Your task to perform on an android device: Open the calendar and show me this week's events? Image 0: 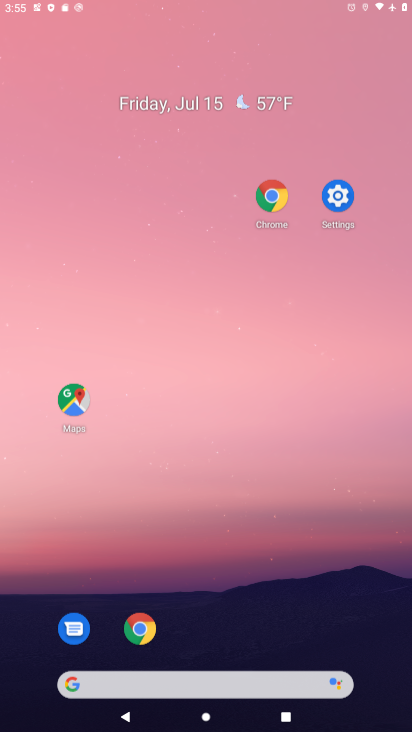
Step 0: drag from (208, 288) to (174, 106)
Your task to perform on an android device: Open the calendar and show me this week's events? Image 1: 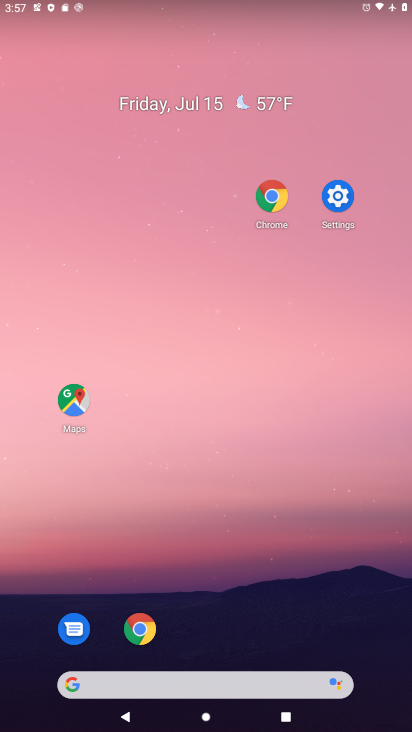
Step 1: drag from (286, 592) to (196, 73)
Your task to perform on an android device: Open the calendar and show me this week's events? Image 2: 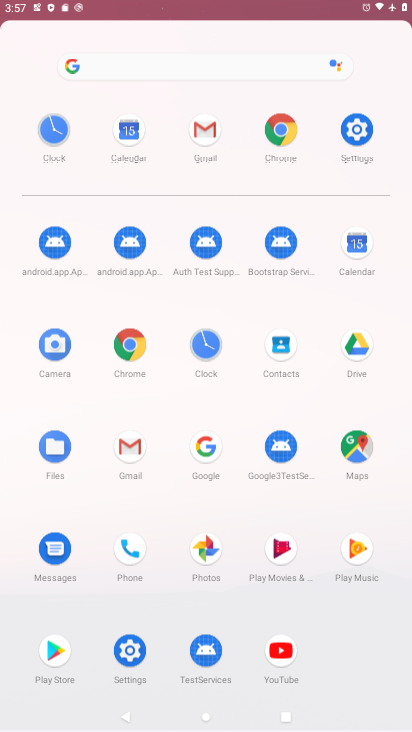
Step 2: click (152, 24)
Your task to perform on an android device: Open the calendar and show me this week's events? Image 3: 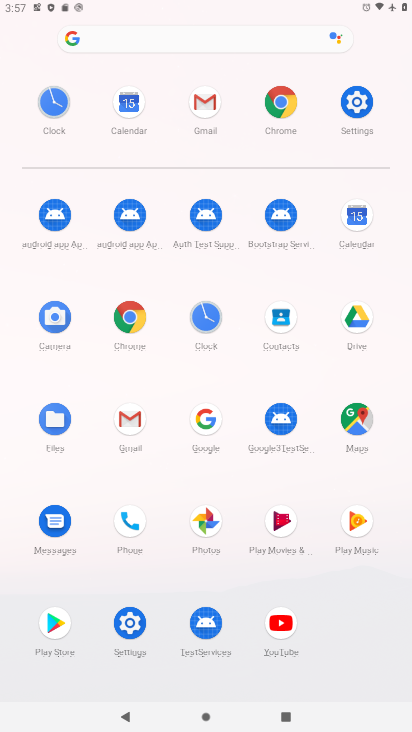
Step 3: drag from (179, 400) to (169, 39)
Your task to perform on an android device: Open the calendar and show me this week's events? Image 4: 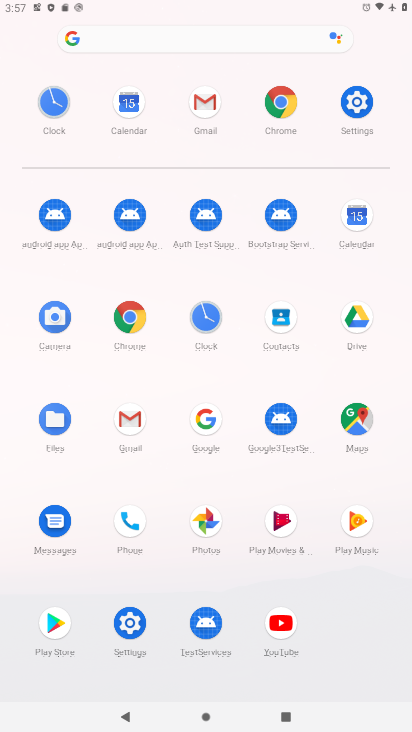
Step 4: click (200, 159)
Your task to perform on an android device: Open the calendar and show me this week's events? Image 5: 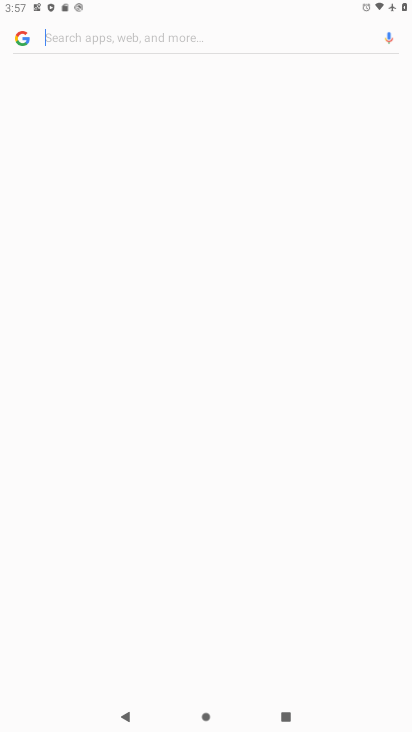
Step 5: drag from (186, 238) to (199, 98)
Your task to perform on an android device: Open the calendar and show me this week's events? Image 6: 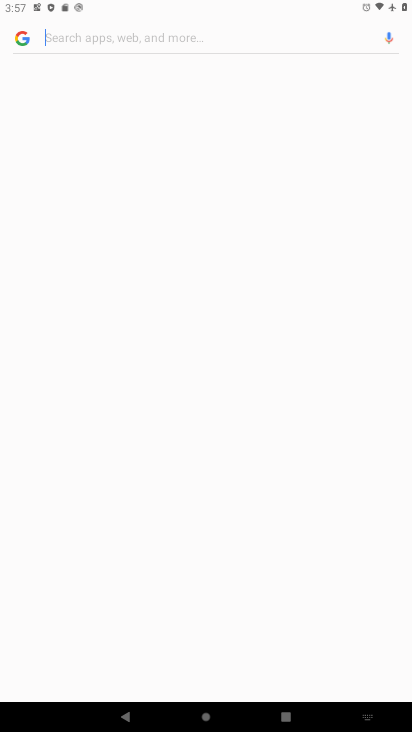
Step 6: drag from (280, 101) to (257, 340)
Your task to perform on an android device: Open the calendar and show me this week's events? Image 7: 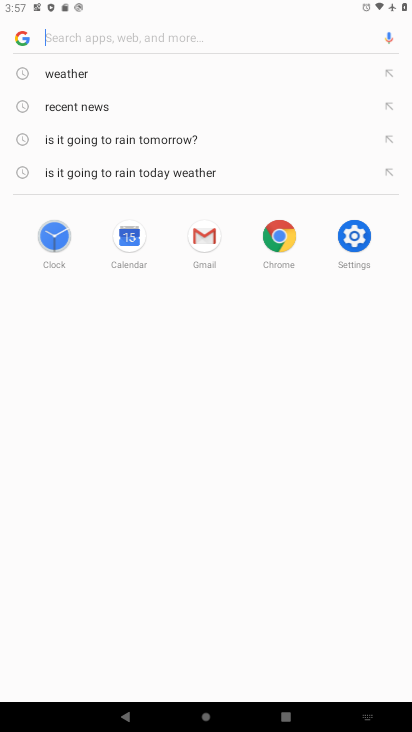
Step 7: click (117, 241)
Your task to perform on an android device: Open the calendar and show me this week's events? Image 8: 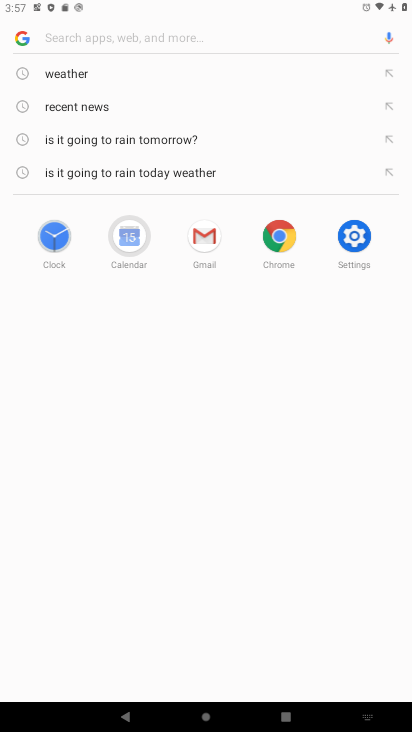
Step 8: click (123, 243)
Your task to perform on an android device: Open the calendar and show me this week's events? Image 9: 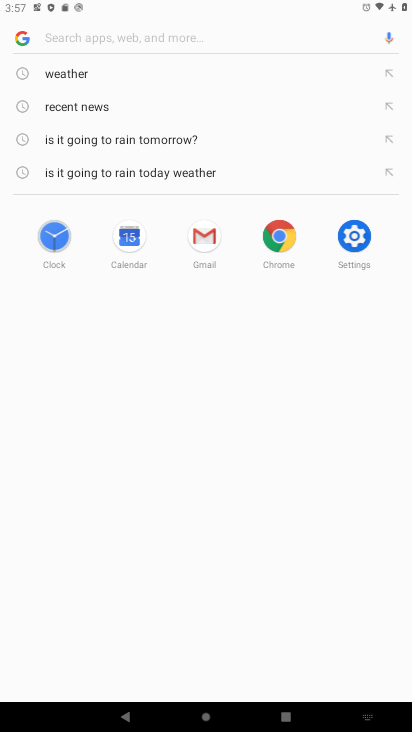
Step 9: click (123, 243)
Your task to perform on an android device: Open the calendar and show me this week's events? Image 10: 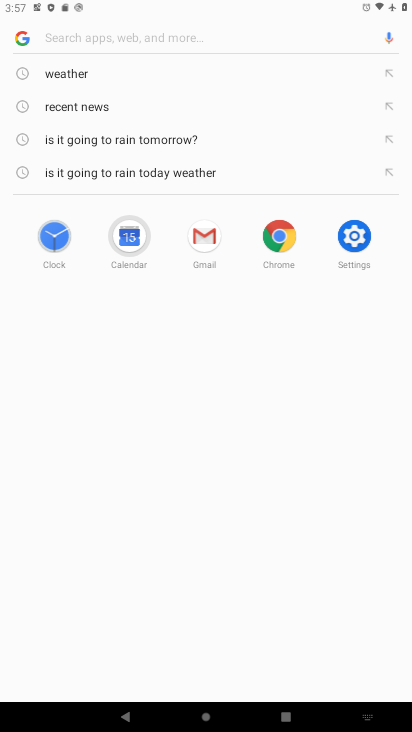
Step 10: click (122, 243)
Your task to perform on an android device: Open the calendar and show me this week's events? Image 11: 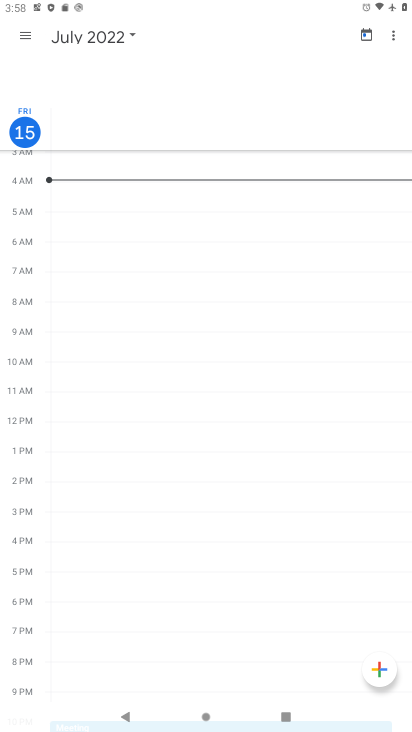
Step 11: click (132, 34)
Your task to perform on an android device: Open the calendar and show me this week's events? Image 12: 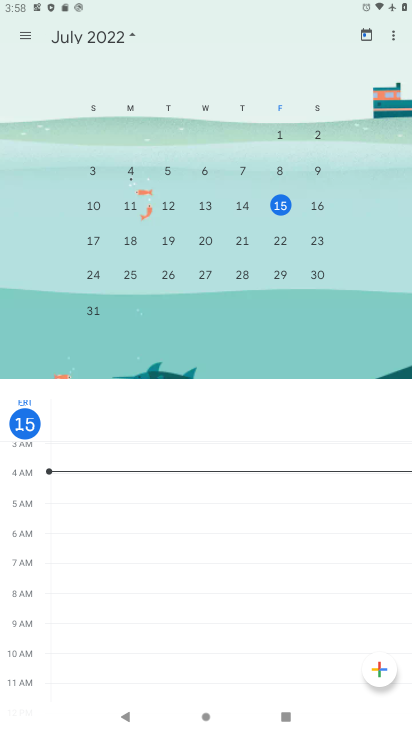
Step 12: click (314, 199)
Your task to perform on an android device: Open the calendar and show me this week's events? Image 13: 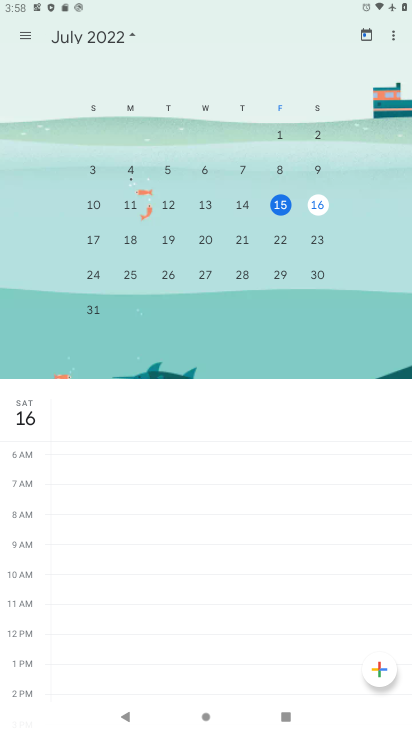
Step 13: click (314, 203)
Your task to perform on an android device: Open the calendar and show me this week's events? Image 14: 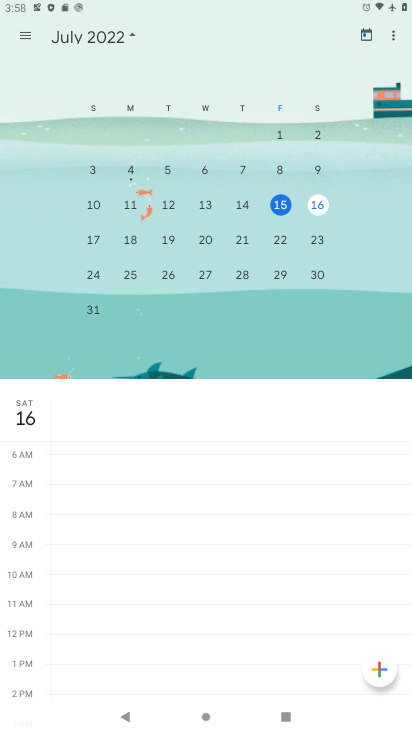
Step 14: click (313, 203)
Your task to perform on an android device: Open the calendar and show me this week's events? Image 15: 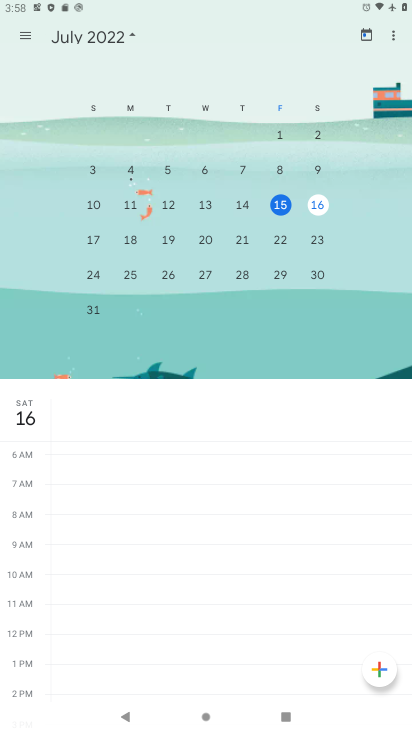
Step 15: click (313, 203)
Your task to perform on an android device: Open the calendar and show me this week's events? Image 16: 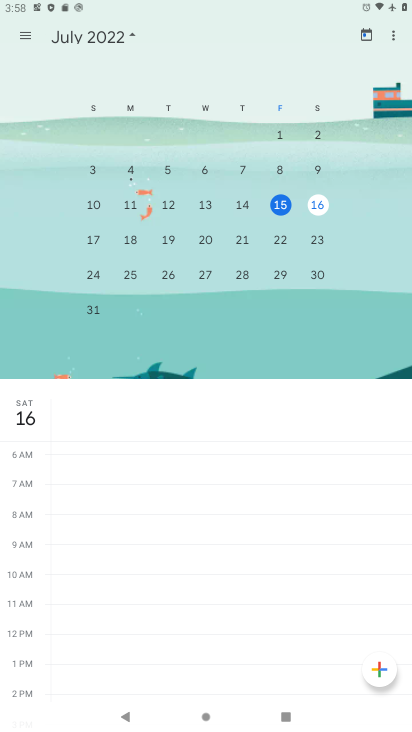
Step 16: click (312, 203)
Your task to perform on an android device: Open the calendar and show me this week's events? Image 17: 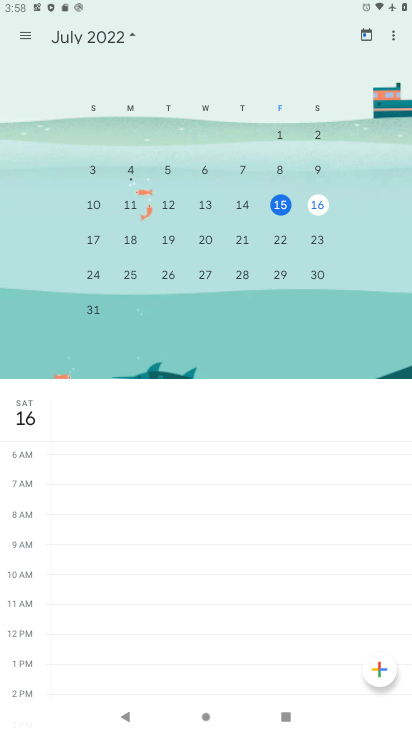
Step 17: task complete